Your task to perform on an android device: turn on wifi Image 0: 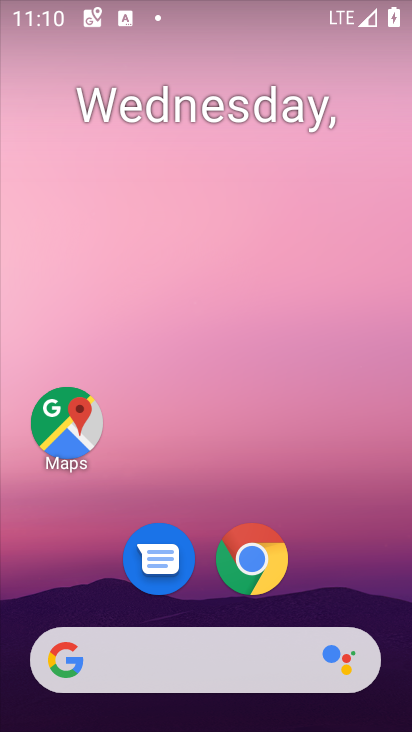
Step 0: drag from (211, 614) to (281, 226)
Your task to perform on an android device: turn on wifi Image 1: 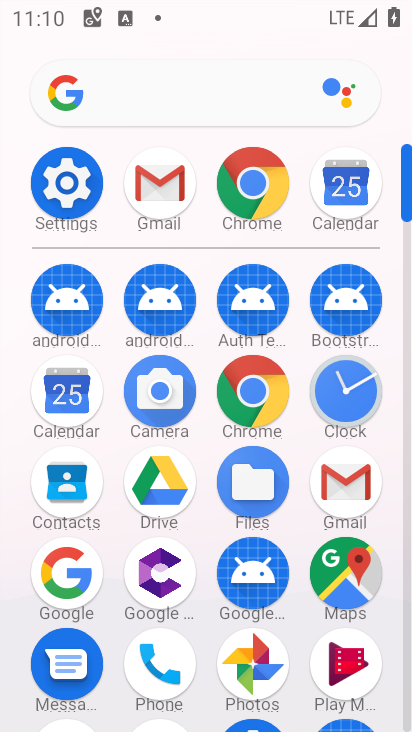
Step 1: click (84, 206)
Your task to perform on an android device: turn on wifi Image 2: 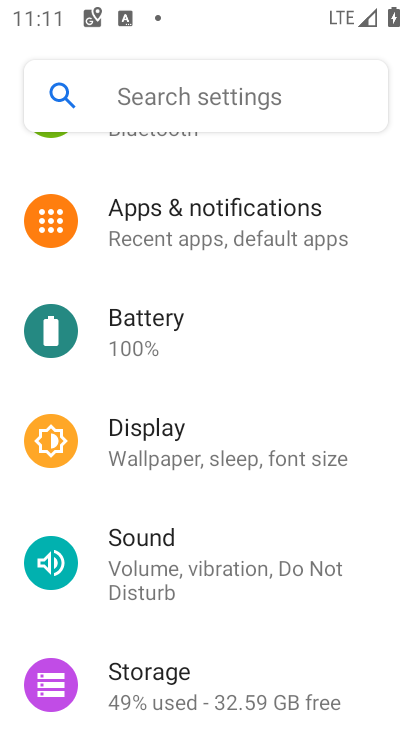
Step 2: drag from (257, 254) to (270, 678)
Your task to perform on an android device: turn on wifi Image 3: 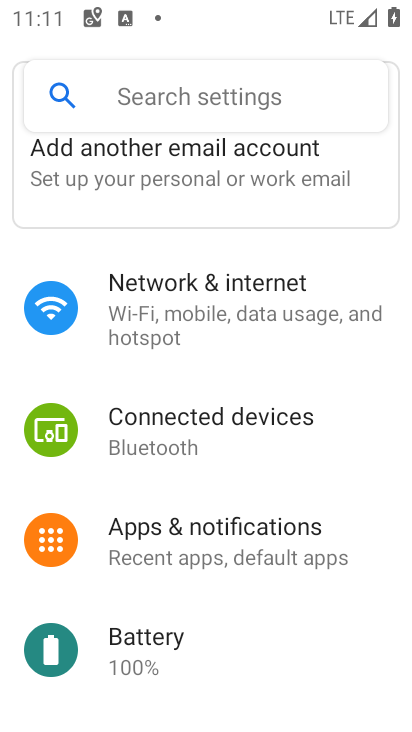
Step 3: drag from (248, 319) to (242, 679)
Your task to perform on an android device: turn on wifi Image 4: 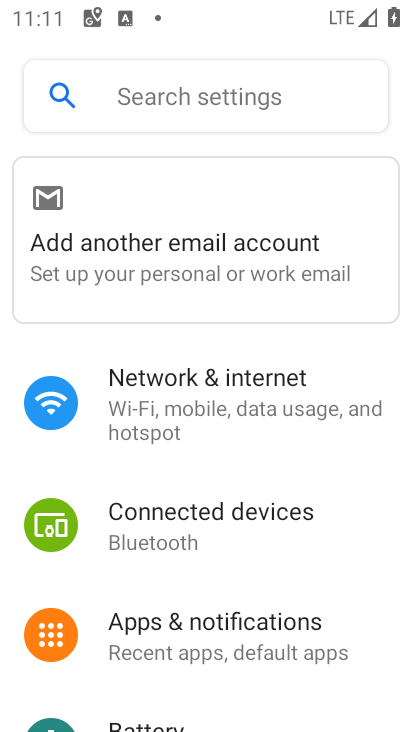
Step 4: click (281, 419)
Your task to perform on an android device: turn on wifi Image 5: 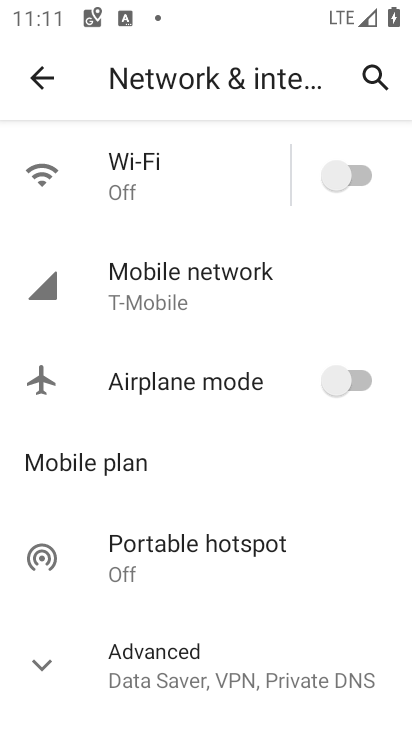
Step 5: click (366, 178)
Your task to perform on an android device: turn on wifi Image 6: 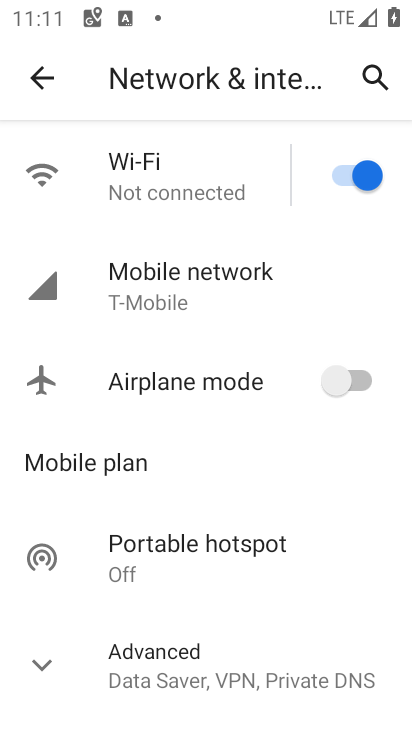
Step 6: task complete